Your task to perform on an android device: create a new album in the google photos Image 0: 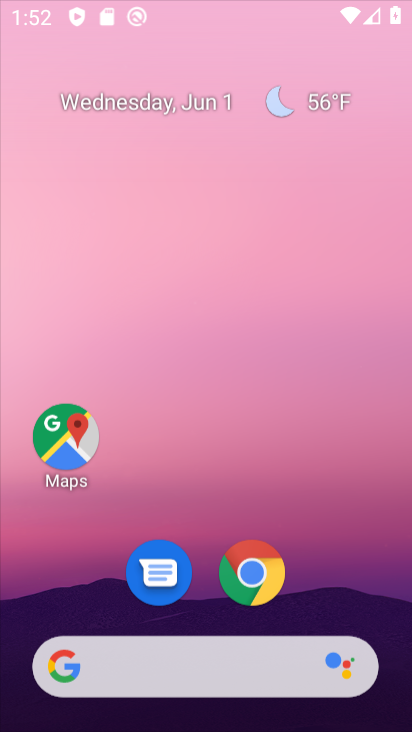
Step 0: drag from (358, 23) to (385, 127)
Your task to perform on an android device: create a new album in the google photos Image 1: 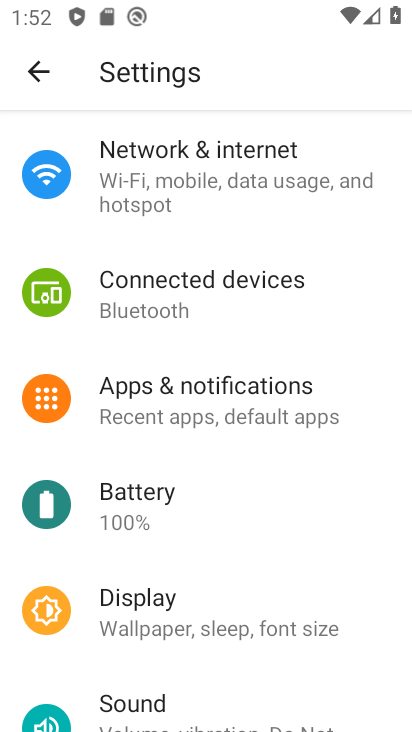
Step 1: press home button
Your task to perform on an android device: create a new album in the google photos Image 2: 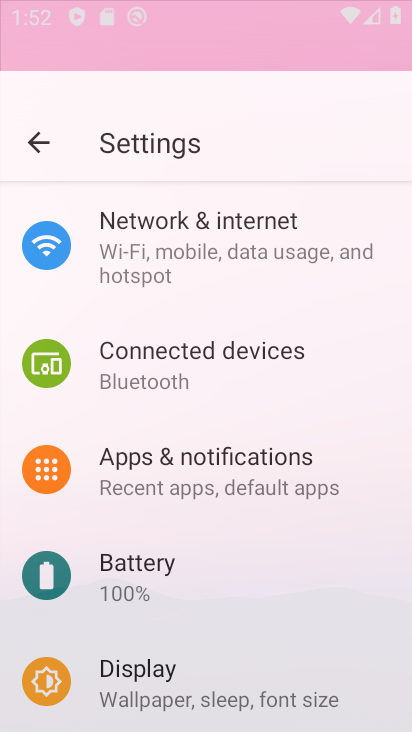
Step 2: drag from (243, 564) to (239, 48)
Your task to perform on an android device: create a new album in the google photos Image 3: 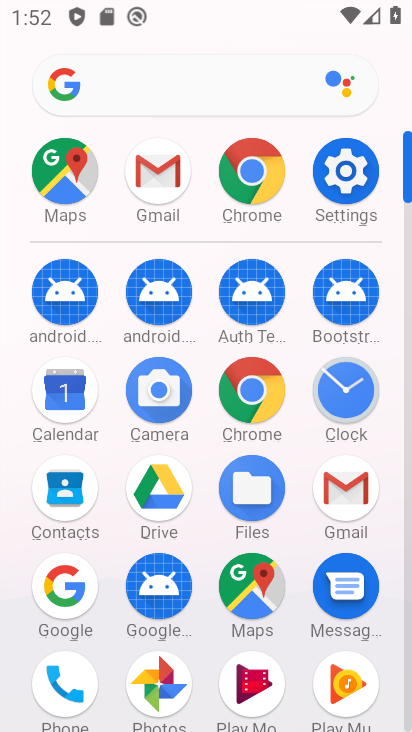
Step 3: click (141, 661)
Your task to perform on an android device: create a new album in the google photos Image 4: 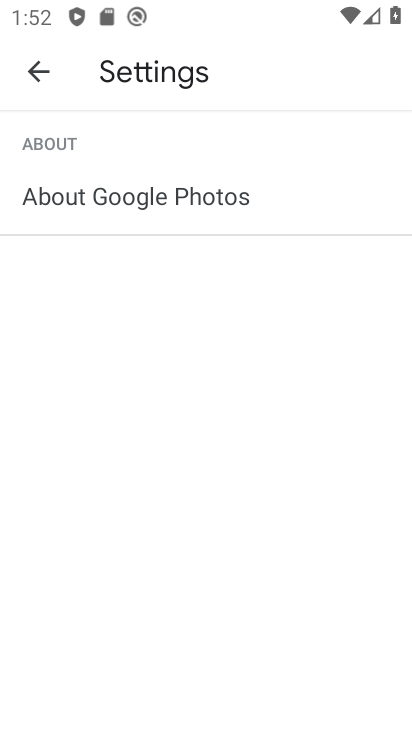
Step 4: press back button
Your task to perform on an android device: create a new album in the google photos Image 5: 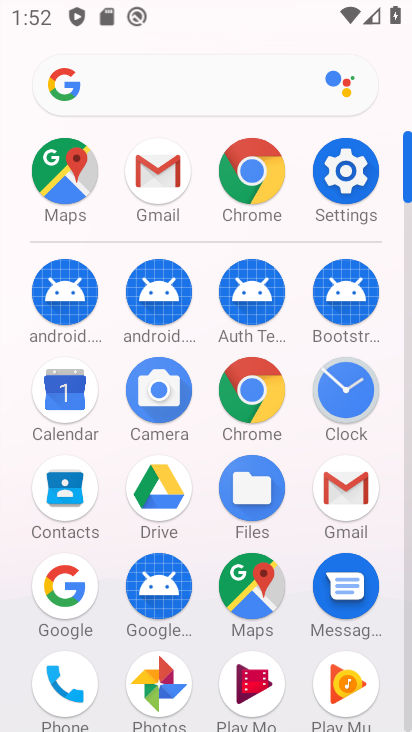
Step 5: click (165, 682)
Your task to perform on an android device: create a new album in the google photos Image 6: 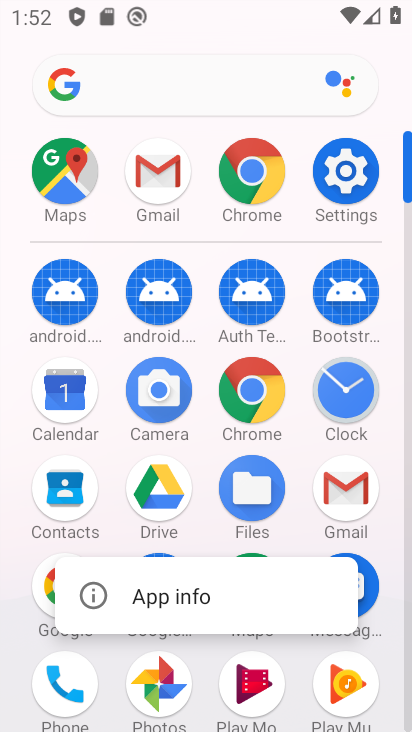
Step 6: click (175, 602)
Your task to perform on an android device: create a new album in the google photos Image 7: 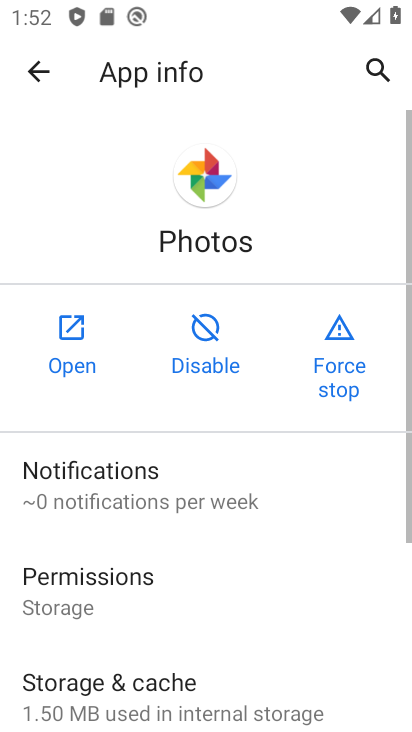
Step 7: click (81, 333)
Your task to perform on an android device: create a new album in the google photos Image 8: 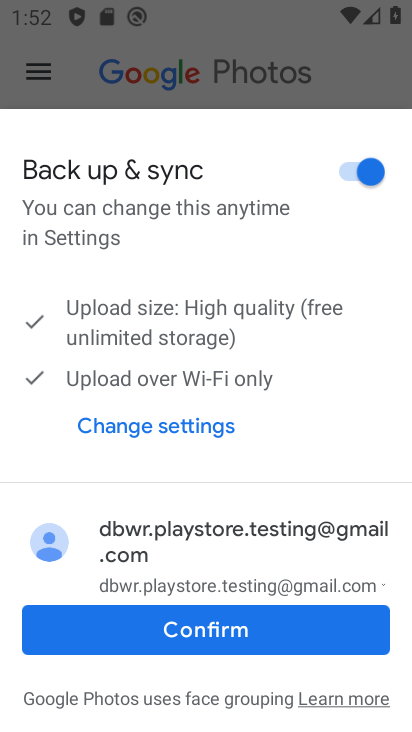
Step 8: click (175, 620)
Your task to perform on an android device: create a new album in the google photos Image 9: 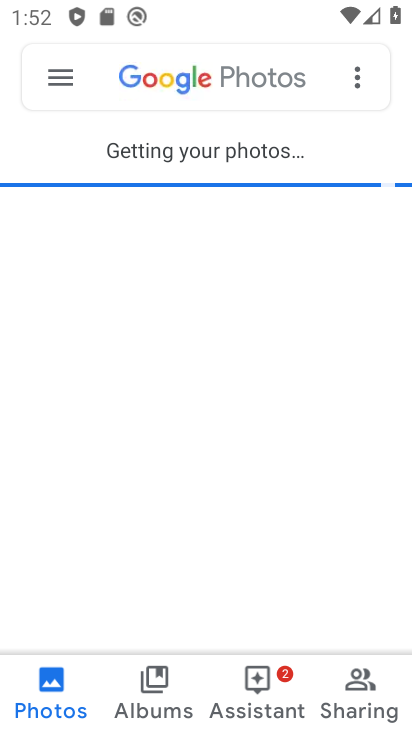
Step 9: click (143, 74)
Your task to perform on an android device: create a new album in the google photos Image 10: 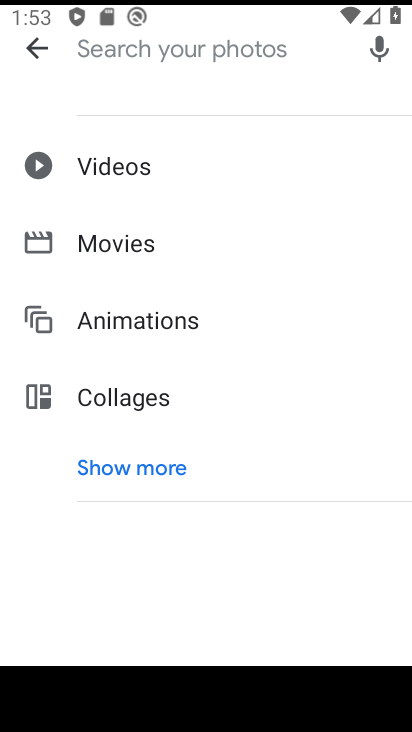
Step 10: click (31, 56)
Your task to perform on an android device: create a new album in the google photos Image 11: 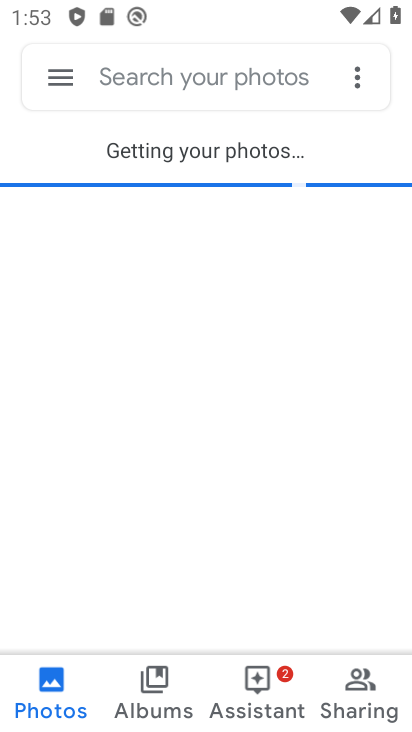
Step 11: click (145, 695)
Your task to perform on an android device: create a new album in the google photos Image 12: 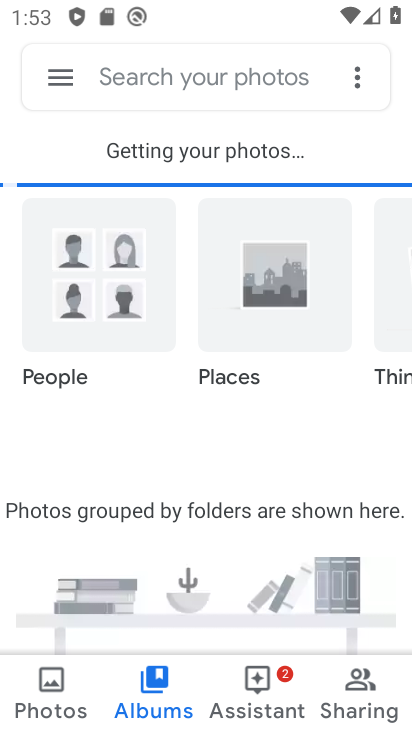
Step 12: drag from (131, 492) to (217, 135)
Your task to perform on an android device: create a new album in the google photos Image 13: 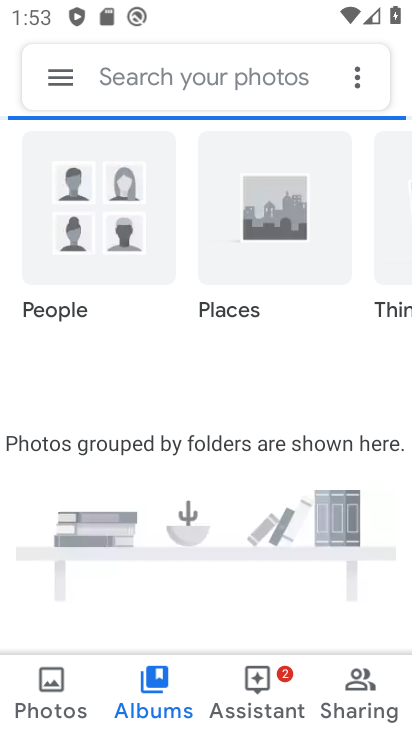
Step 13: drag from (267, 388) to (289, 298)
Your task to perform on an android device: create a new album in the google photos Image 14: 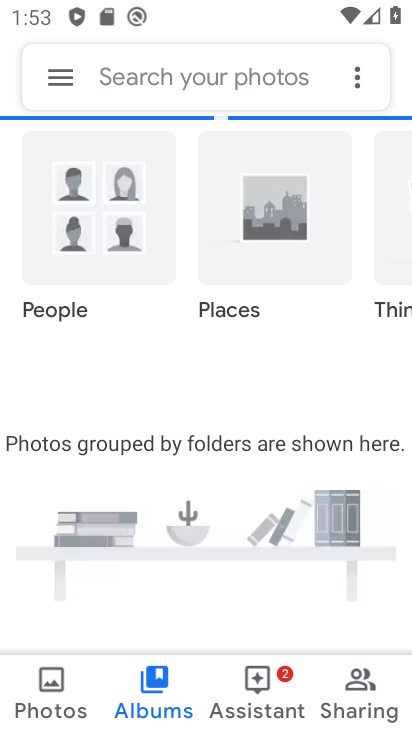
Step 14: drag from (287, 234) to (363, 668)
Your task to perform on an android device: create a new album in the google photos Image 15: 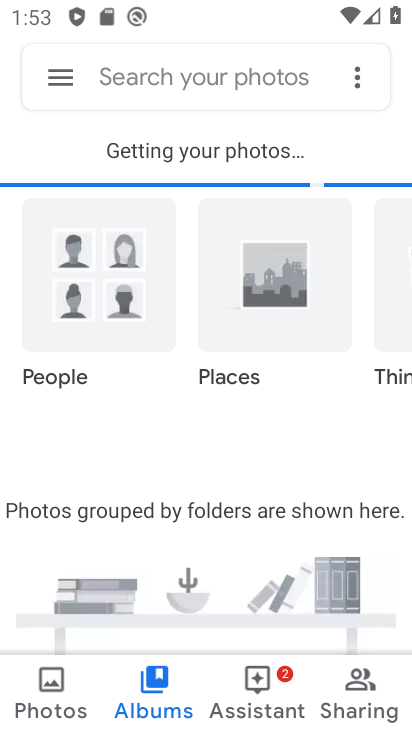
Step 15: click (332, 683)
Your task to perform on an android device: create a new album in the google photos Image 16: 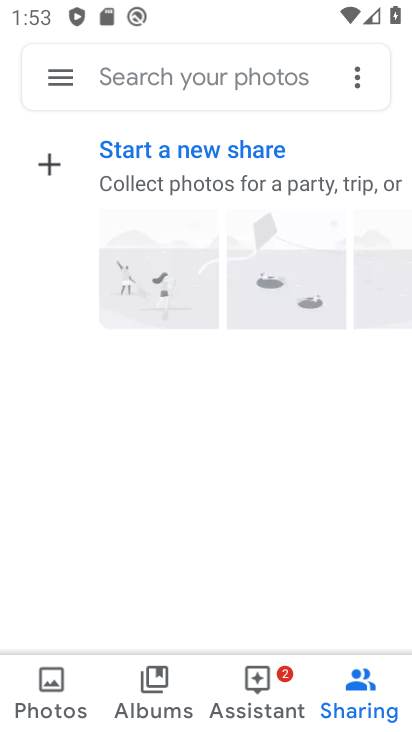
Step 16: click (176, 695)
Your task to perform on an android device: create a new album in the google photos Image 17: 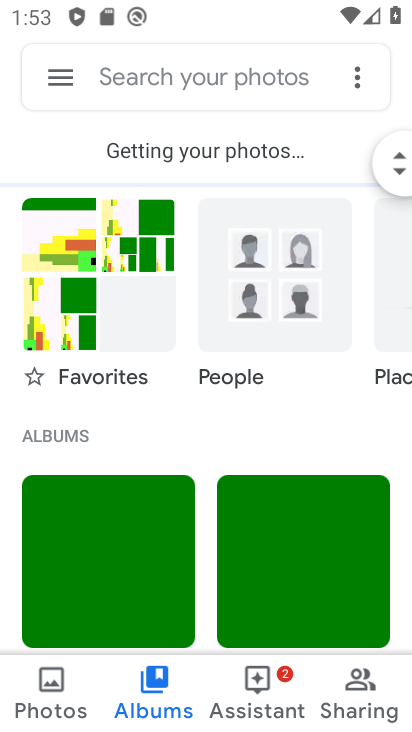
Step 17: task complete